Your task to perform on an android device: change timer sound Image 0: 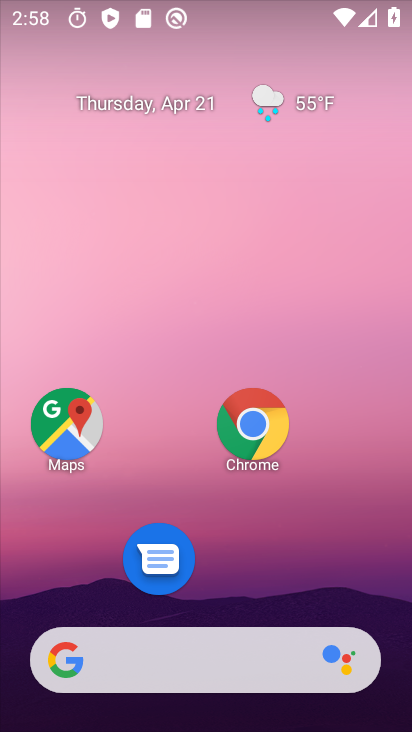
Step 0: drag from (233, 460) to (193, 108)
Your task to perform on an android device: change timer sound Image 1: 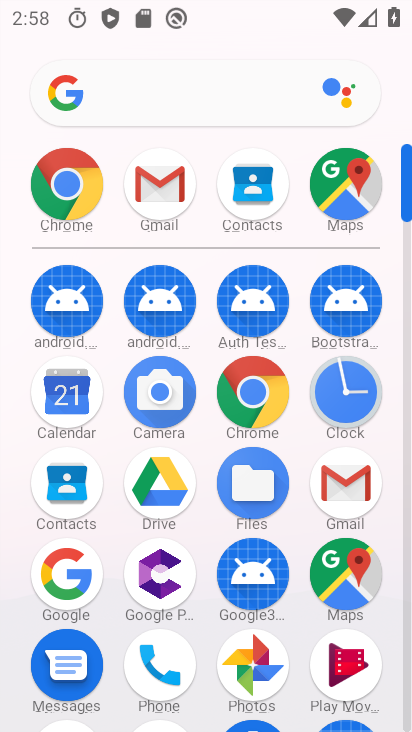
Step 1: click (340, 397)
Your task to perform on an android device: change timer sound Image 2: 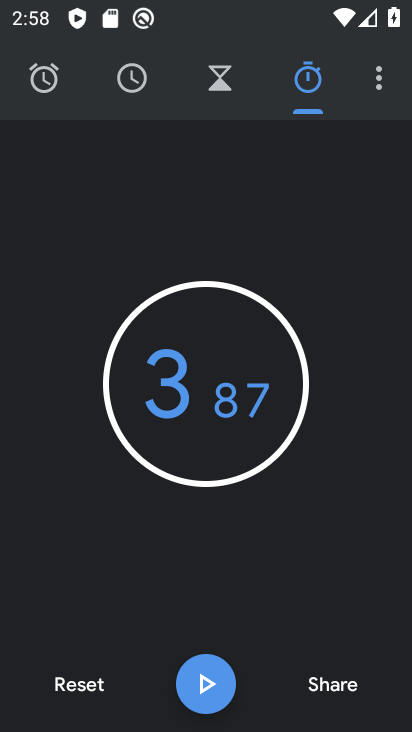
Step 2: click (379, 78)
Your task to perform on an android device: change timer sound Image 3: 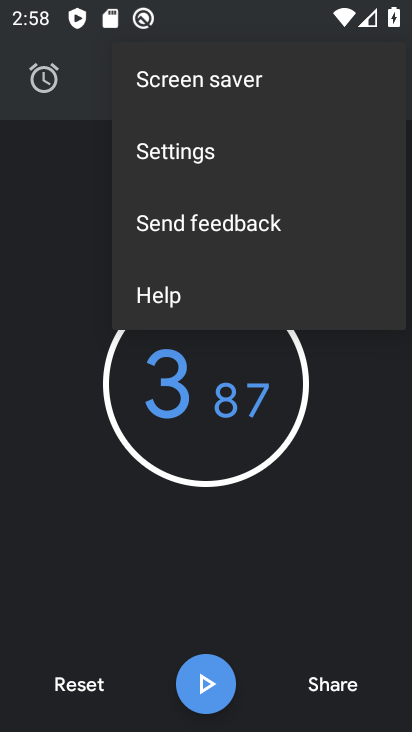
Step 3: click (200, 144)
Your task to perform on an android device: change timer sound Image 4: 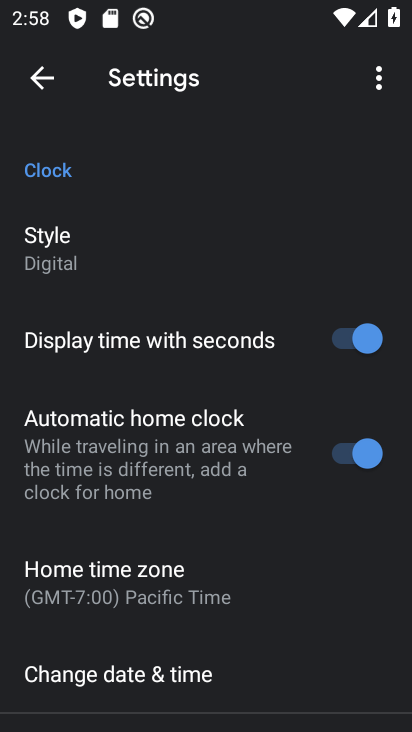
Step 4: drag from (227, 526) to (205, 146)
Your task to perform on an android device: change timer sound Image 5: 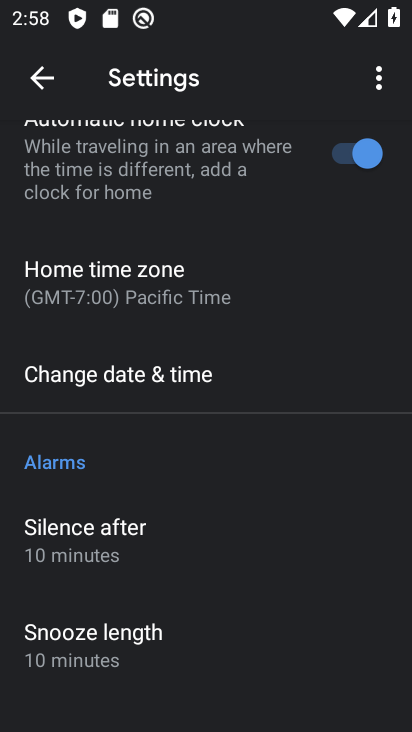
Step 5: drag from (243, 588) to (209, 167)
Your task to perform on an android device: change timer sound Image 6: 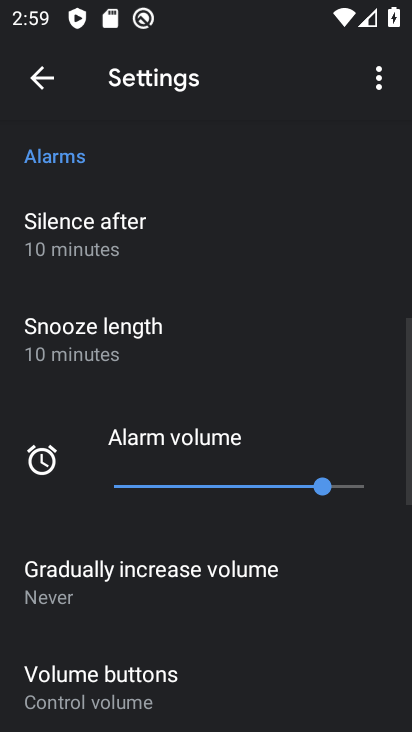
Step 6: drag from (240, 649) to (272, 237)
Your task to perform on an android device: change timer sound Image 7: 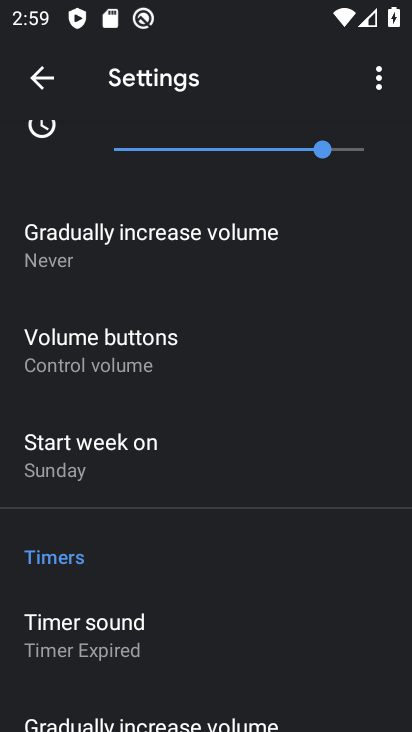
Step 7: click (129, 636)
Your task to perform on an android device: change timer sound Image 8: 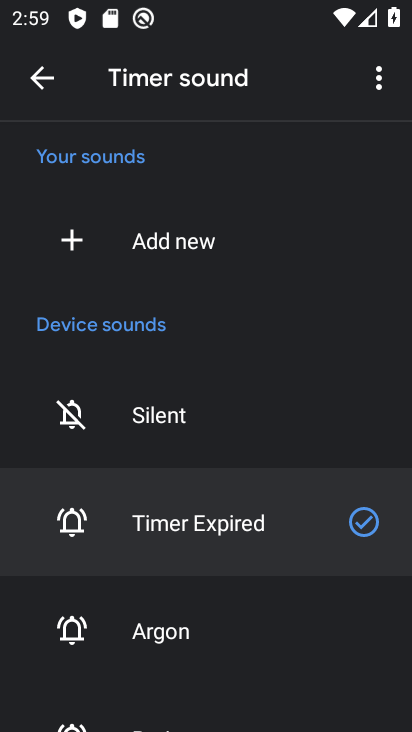
Step 8: click (140, 629)
Your task to perform on an android device: change timer sound Image 9: 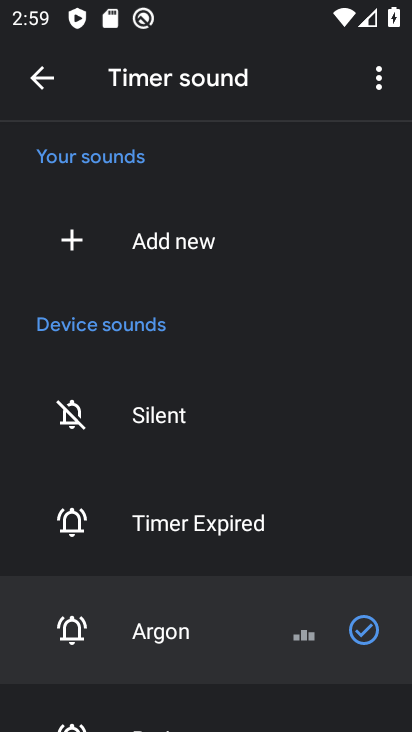
Step 9: task complete